Your task to perform on an android device: Open location settings Image 0: 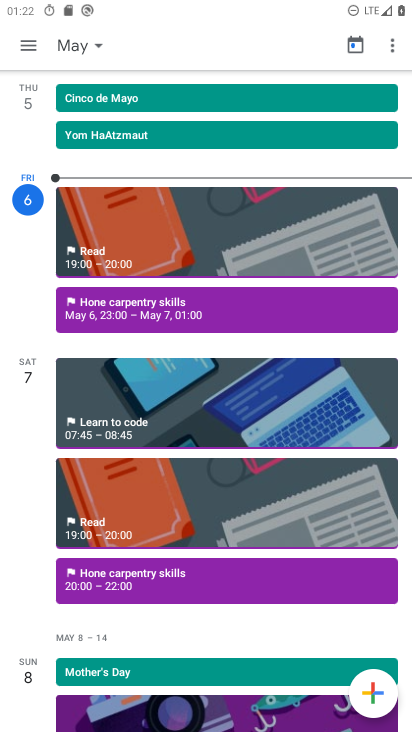
Step 0: press home button
Your task to perform on an android device: Open location settings Image 1: 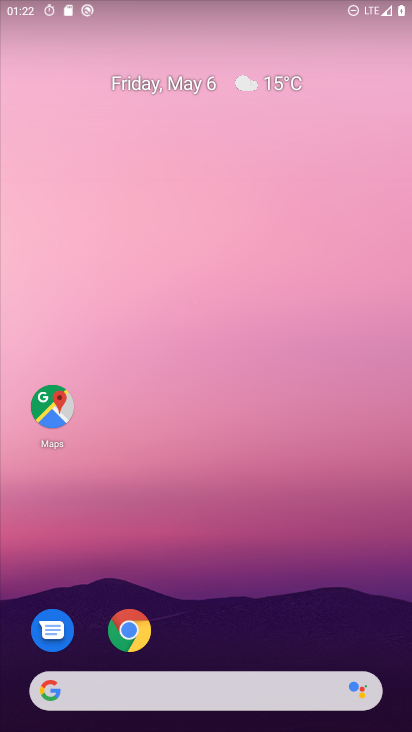
Step 1: drag from (229, 561) to (165, 5)
Your task to perform on an android device: Open location settings Image 2: 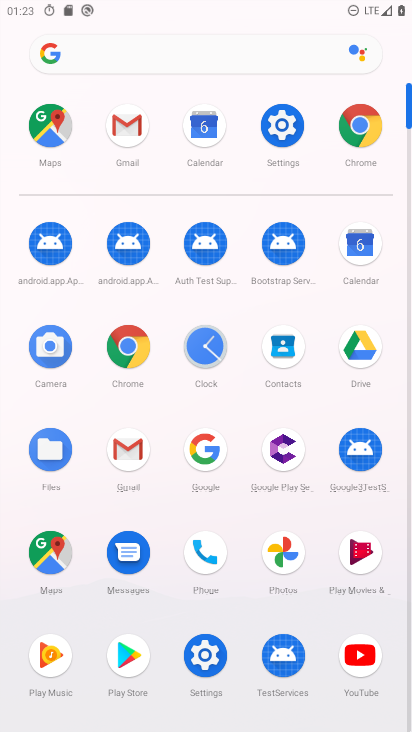
Step 2: click (287, 126)
Your task to perform on an android device: Open location settings Image 3: 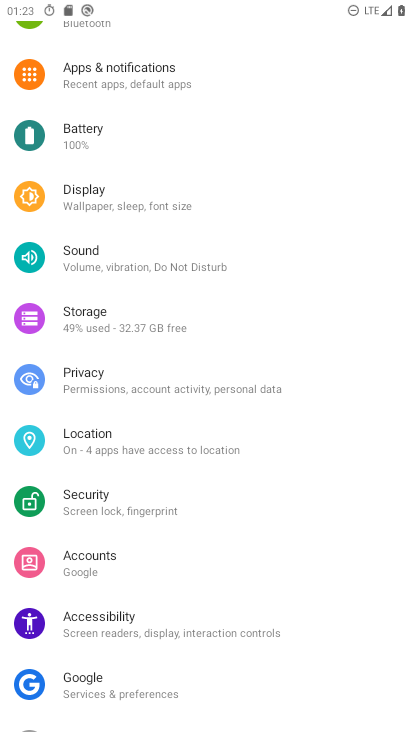
Step 3: click (136, 433)
Your task to perform on an android device: Open location settings Image 4: 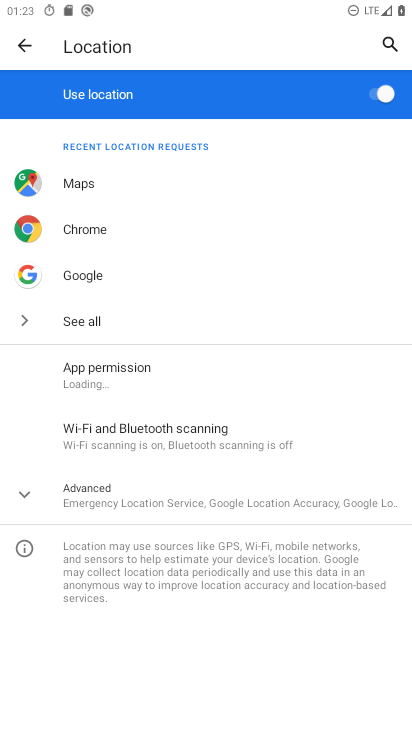
Step 4: task complete